Your task to perform on an android device: What's on my calendar tomorrow? Image 0: 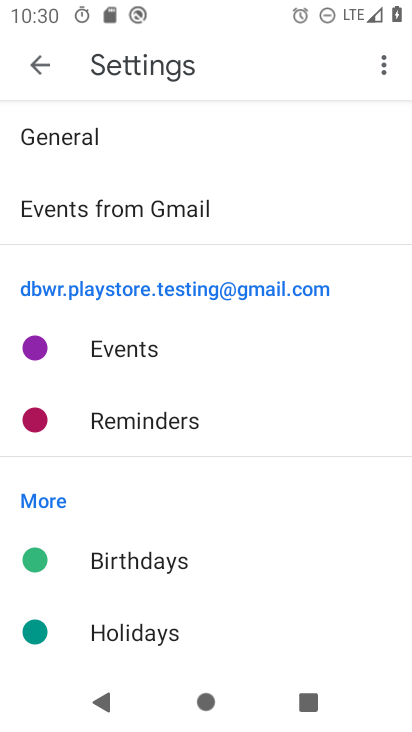
Step 0: press home button
Your task to perform on an android device: What's on my calendar tomorrow? Image 1: 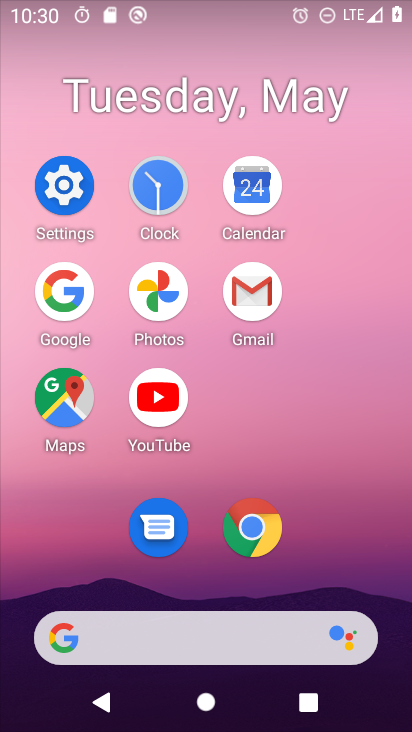
Step 1: click (252, 182)
Your task to perform on an android device: What's on my calendar tomorrow? Image 2: 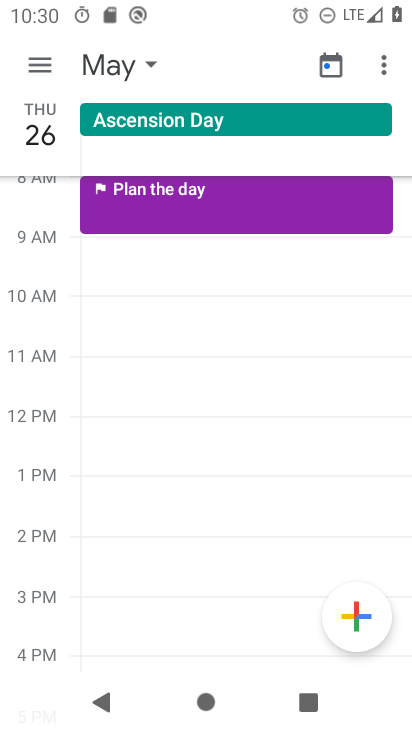
Step 2: task complete